Your task to perform on an android device: uninstall "Google News" Image 0: 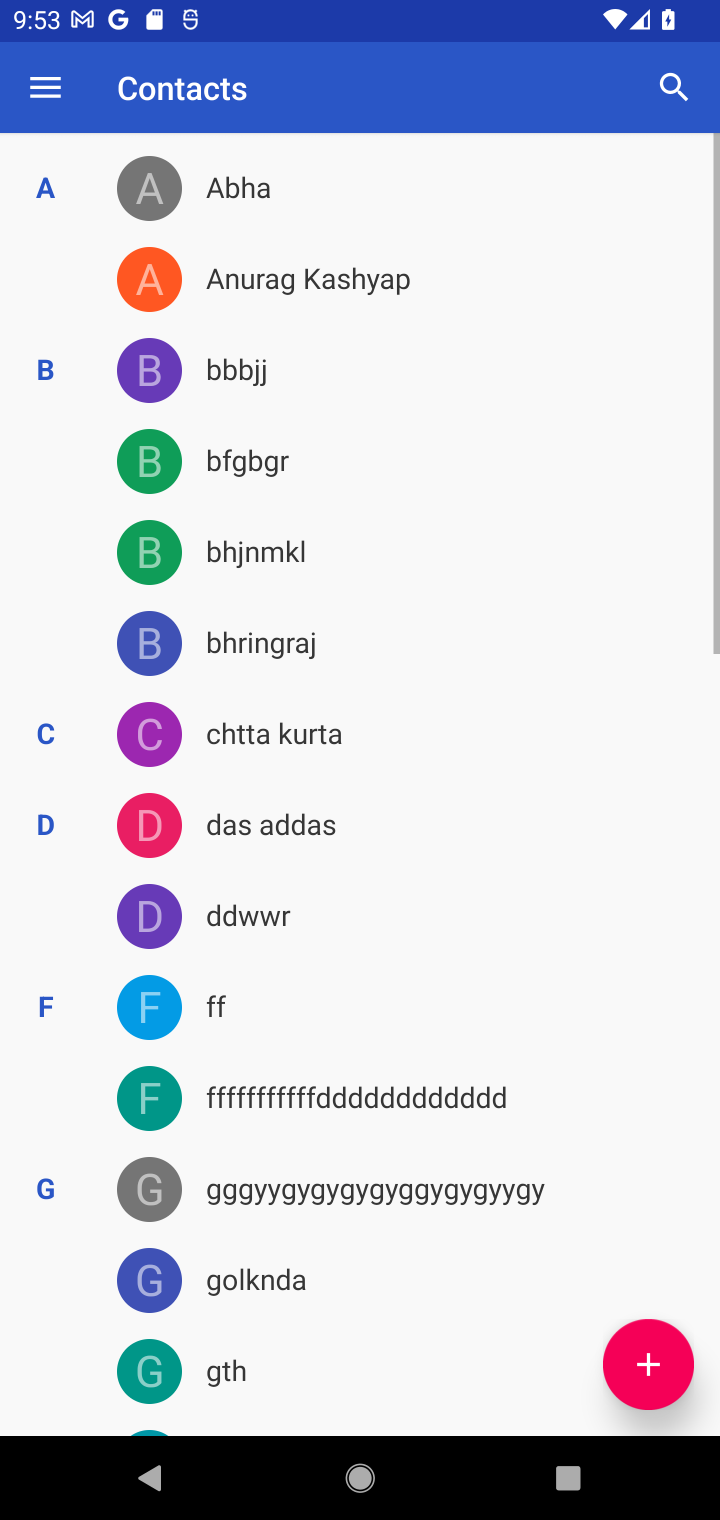
Step 0: press home button
Your task to perform on an android device: uninstall "Google News" Image 1: 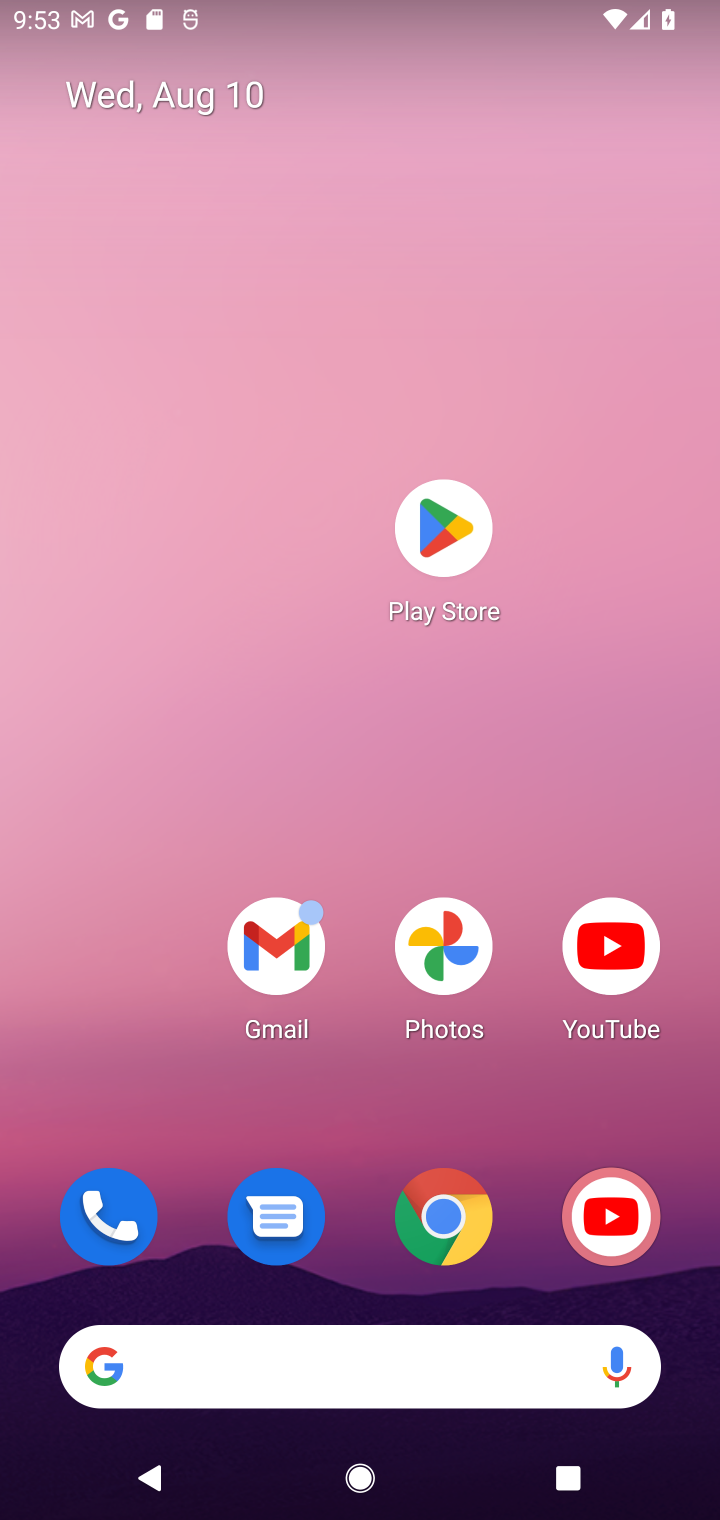
Step 1: click (433, 536)
Your task to perform on an android device: uninstall "Google News" Image 2: 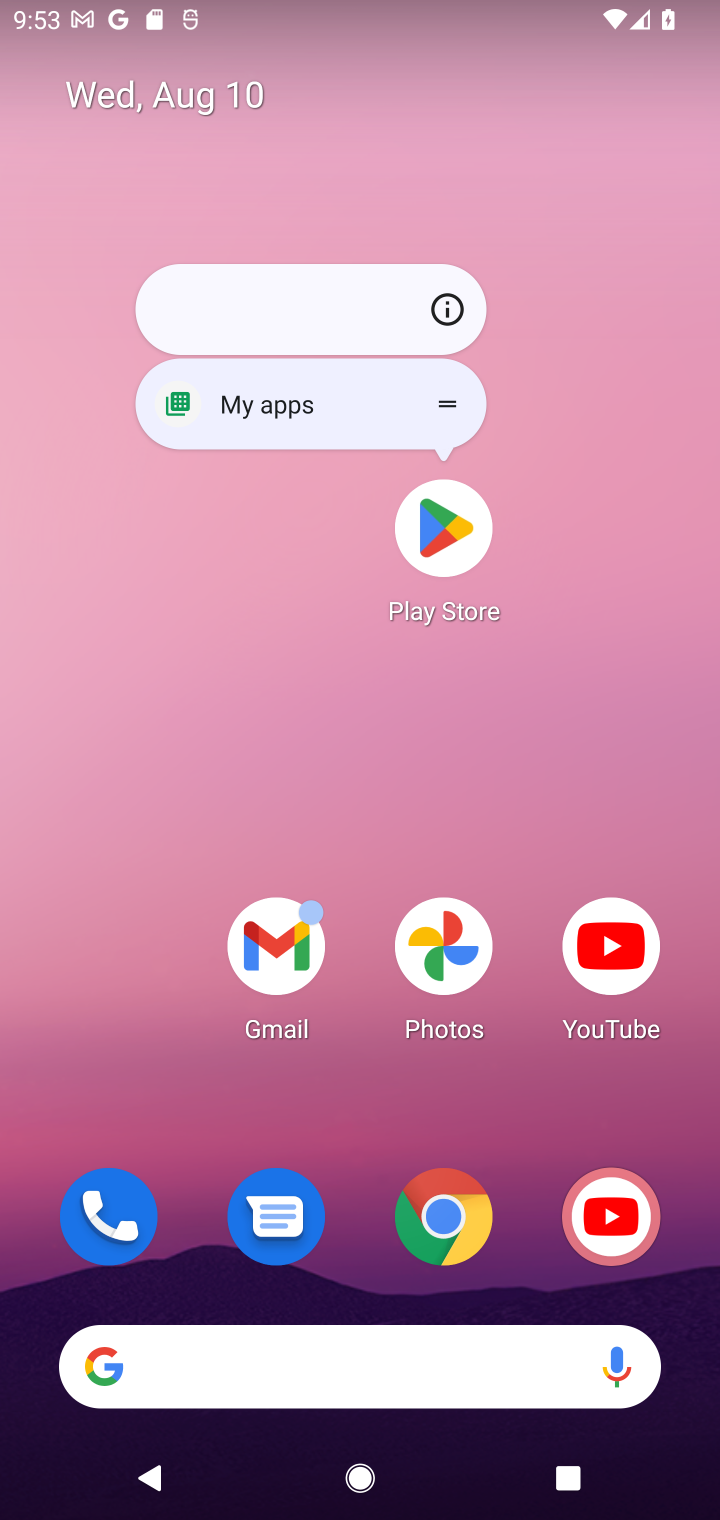
Step 2: click (433, 539)
Your task to perform on an android device: uninstall "Google News" Image 3: 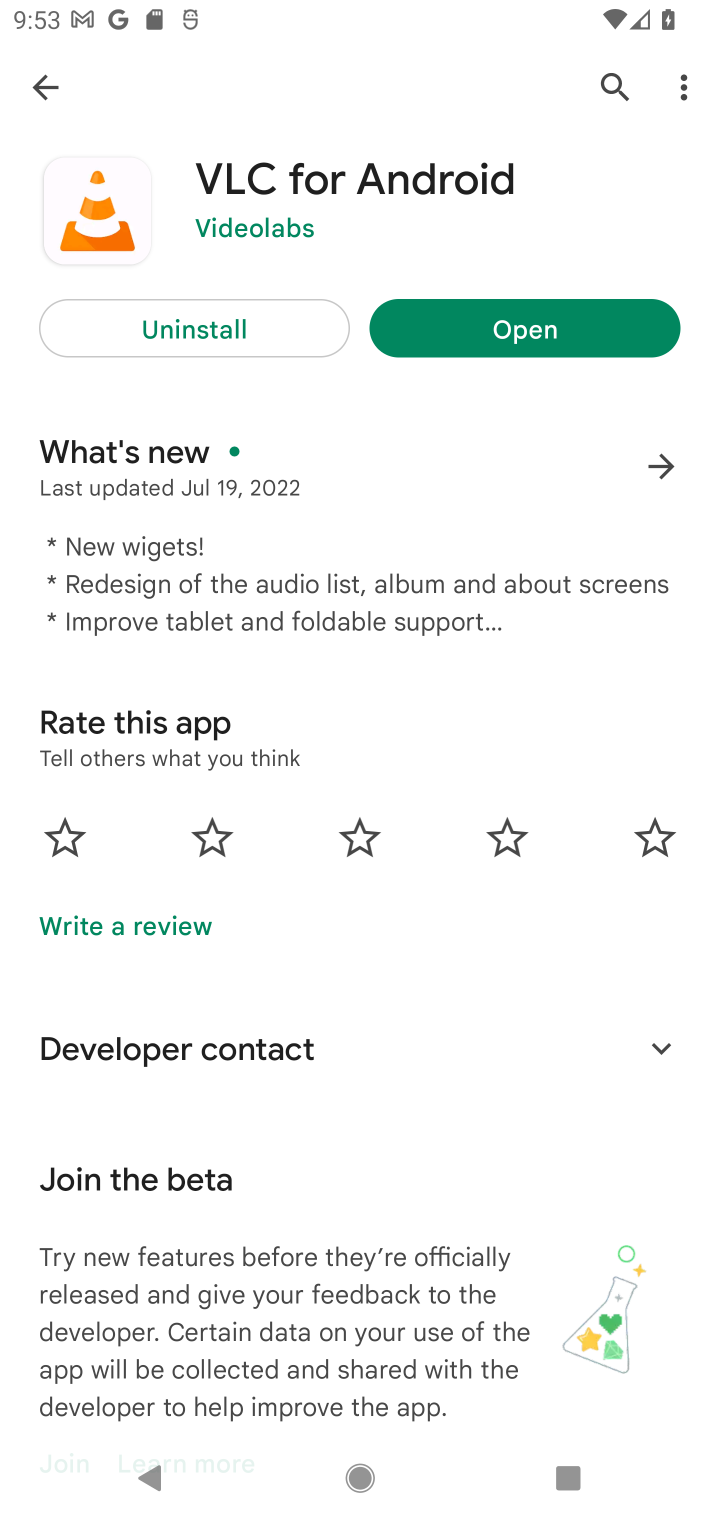
Step 3: click (603, 74)
Your task to perform on an android device: uninstall "Google News" Image 4: 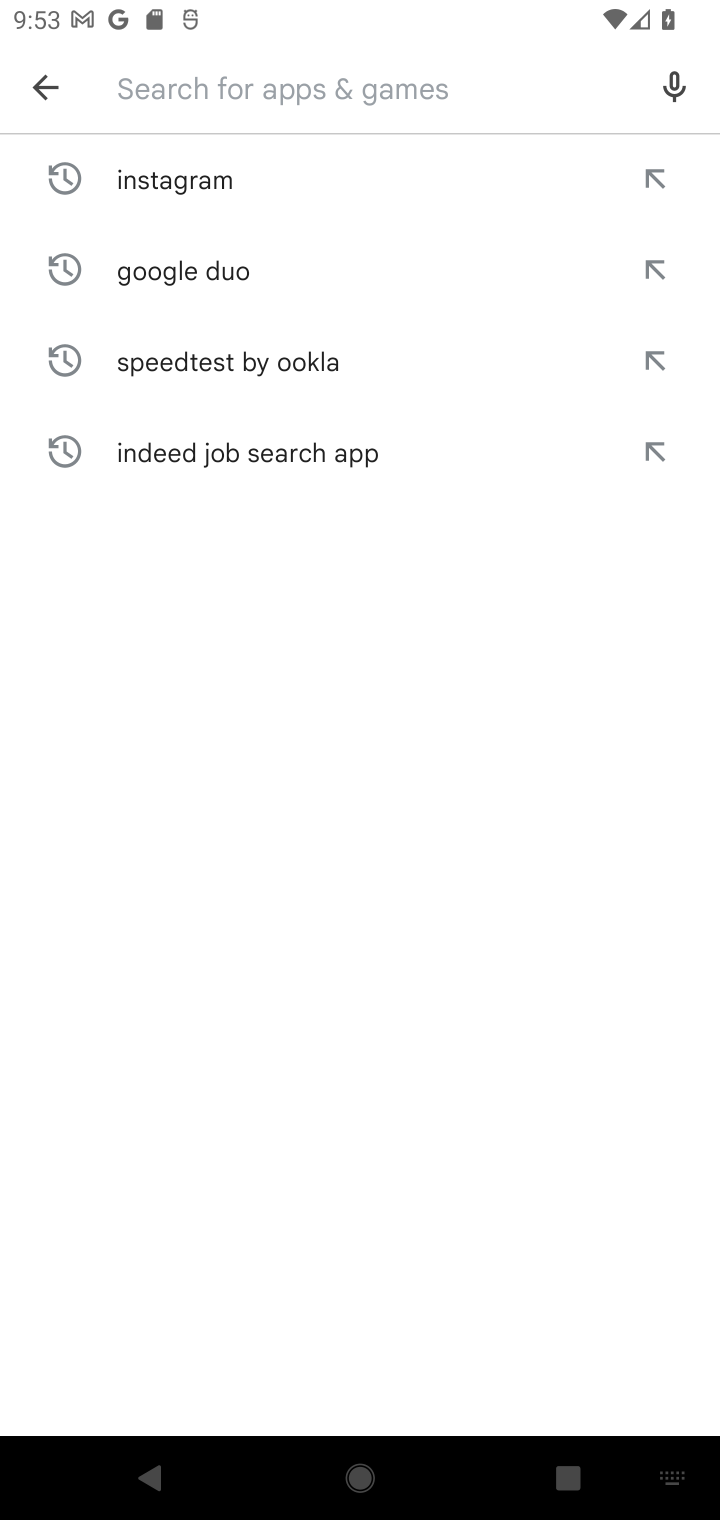
Step 4: type "Google News"
Your task to perform on an android device: uninstall "Google News" Image 5: 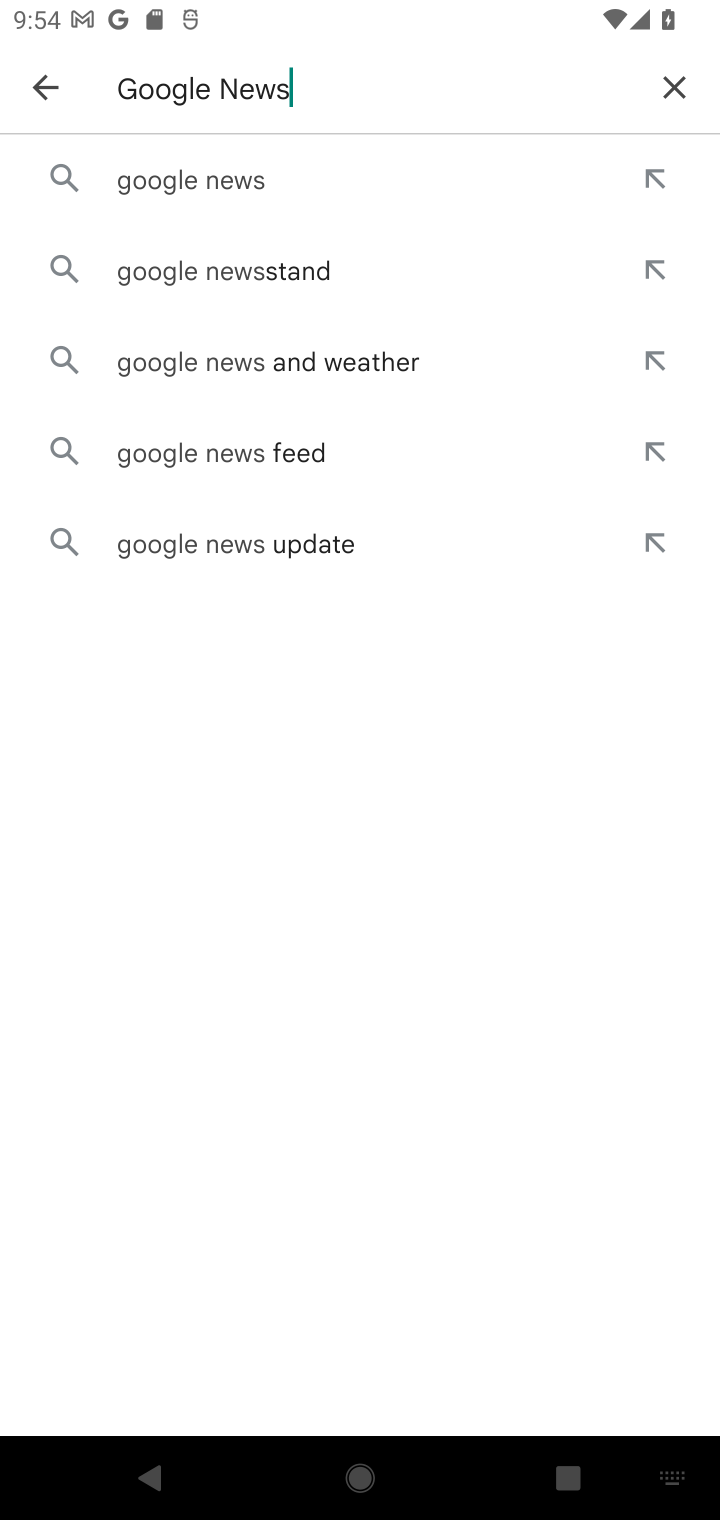
Step 5: click (248, 178)
Your task to perform on an android device: uninstall "Google News" Image 6: 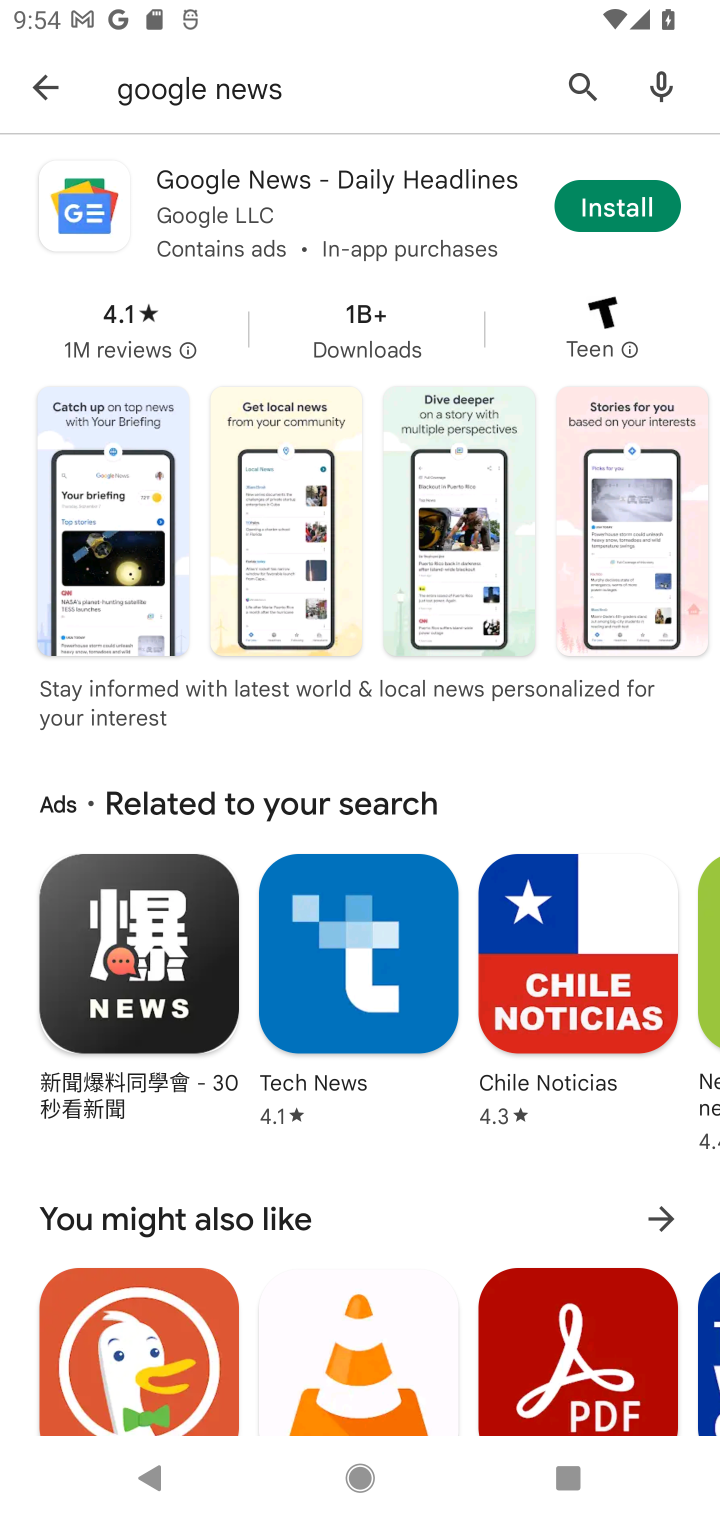
Step 6: task complete